Your task to perform on an android device: Open Google Chrome and click the shortcut for Amazon.com Image 0: 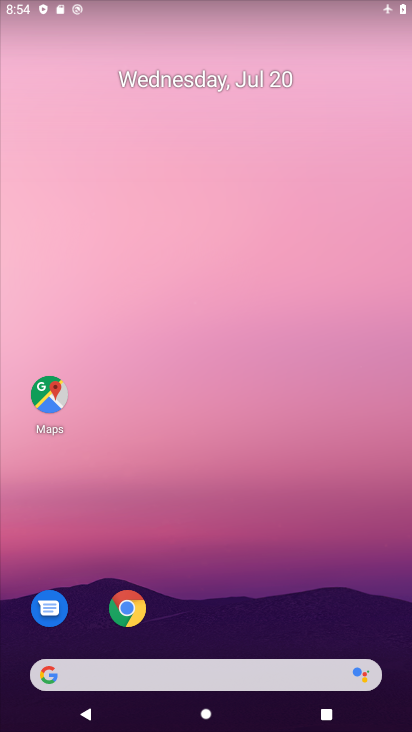
Step 0: drag from (279, 701) to (188, 179)
Your task to perform on an android device: Open Google Chrome and click the shortcut for Amazon.com Image 1: 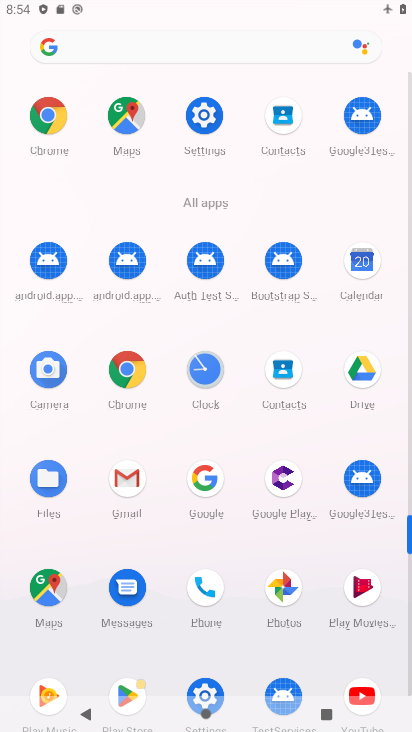
Step 1: click (121, 362)
Your task to perform on an android device: Open Google Chrome and click the shortcut for Amazon.com Image 2: 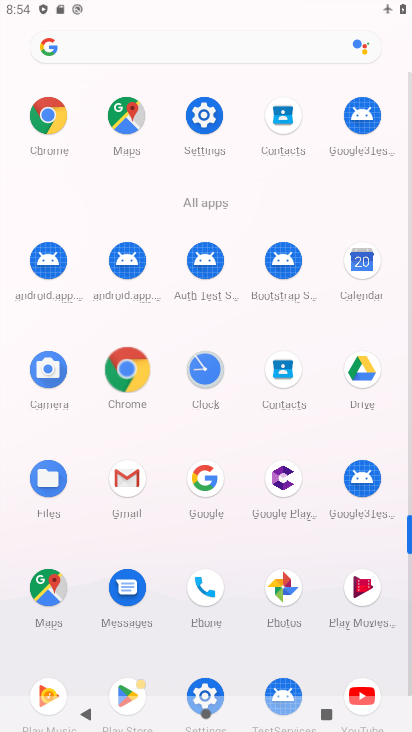
Step 2: click (124, 362)
Your task to perform on an android device: Open Google Chrome and click the shortcut for Amazon.com Image 3: 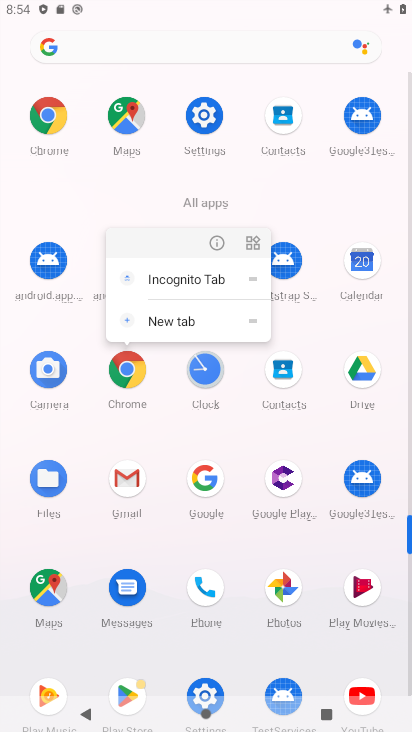
Step 3: click (127, 375)
Your task to perform on an android device: Open Google Chrome and click the shortcut for Amazon.com Image 4: 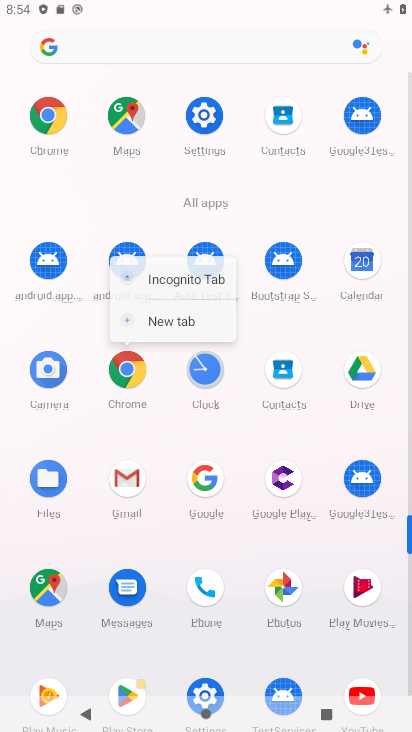
Step 4: click (127, 375)
Your task to perform on an android device: Open Google Chrome and click the shortcut for Amazon.com Image 5: 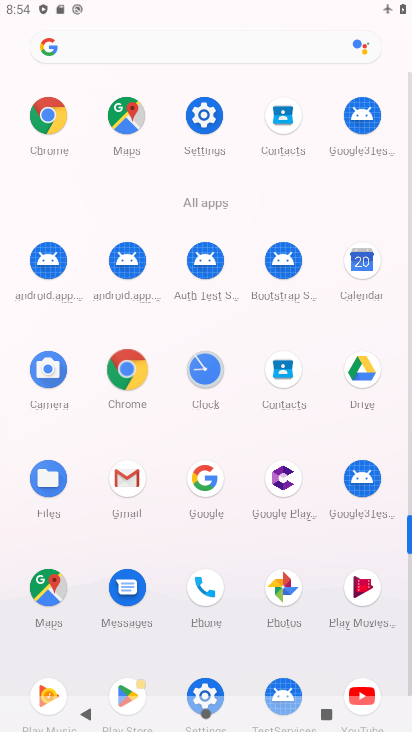
Step 5: click (127, 375)
Your task to perform on an android device: Open Google Chrome and click the shortcut for Amazon.com Image 6: 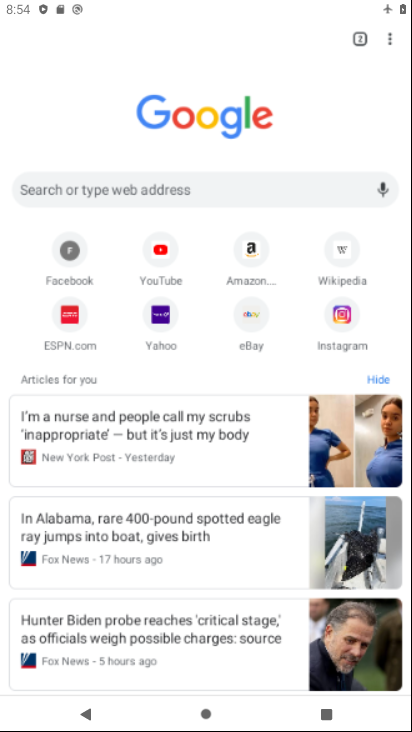
Step 6: click (127, 375)
Your task to perform on an android device: Open Google Chrome and click the shortcut for Amazon.com Image 7: 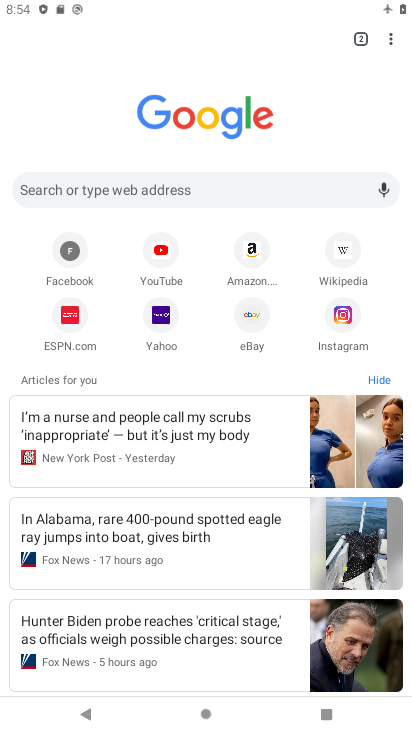
Step 7: click (244, 247)
Your task to perform on an android device: Open Google Chrome and click the shortcut for Amazon.com Image 8: 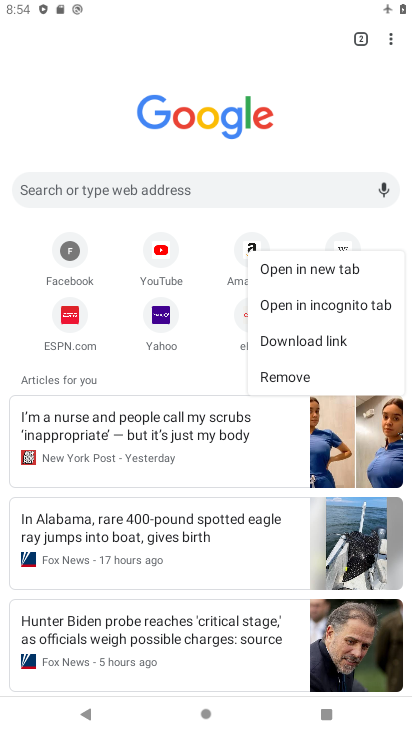
Step 8: click (257, 246)
Your task to perform on an android device: Open Google Chrome and click the shortcut for Amazon.com Image 9: 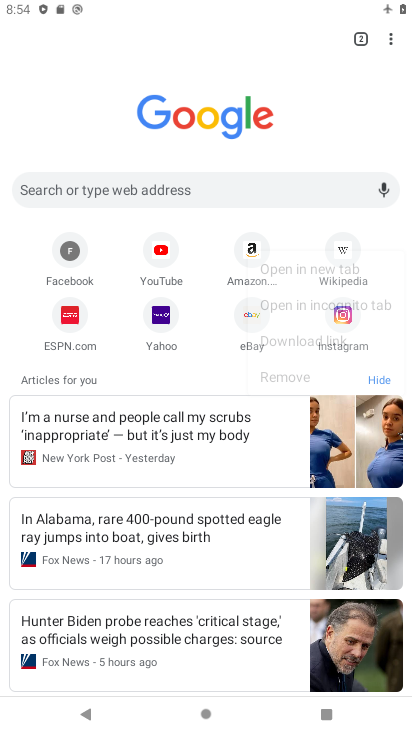
Step 9: click (258, 246)
Your task to perform on an android device: Open Google Chrome and click the shortcut for Amazon.com Image 10: 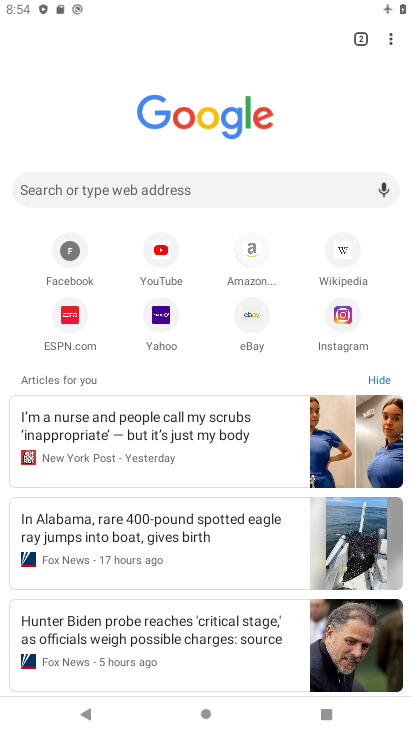
Step 10: click (258, 246)
Your task to perform on an android device: Open Google Chrome and click the shortcut for Amazon.com Image 11: 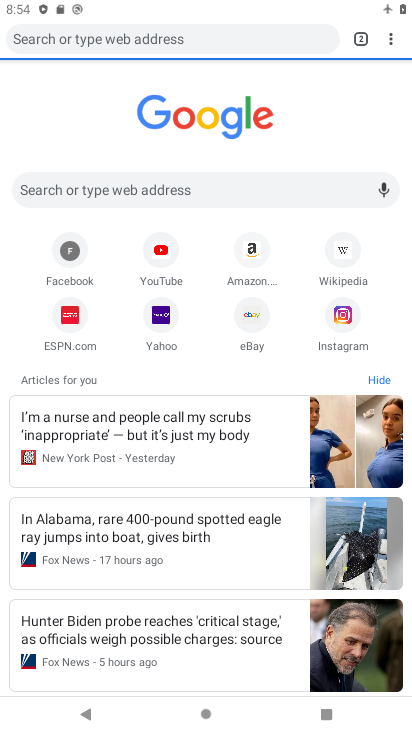
Step 11: click (263, 245)
Your task to perform on an android device: Open Google Chrome and click the shortcut for Amazon.com Image 12: 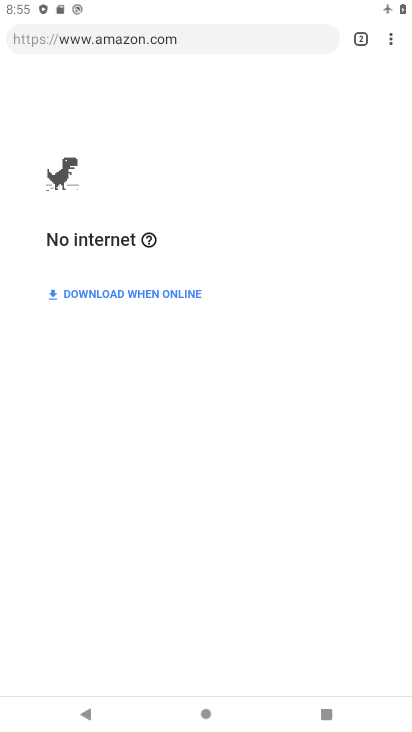
Step 12: task complete